Your task to perform on an android device: Check the news Image 0: 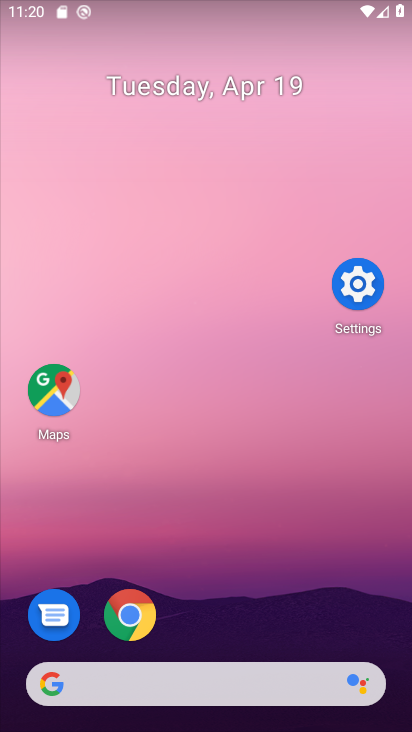
Step 0: drag from (189, 629) to (222, 126)
Your task to perform on an android device: Check the news Image 1: 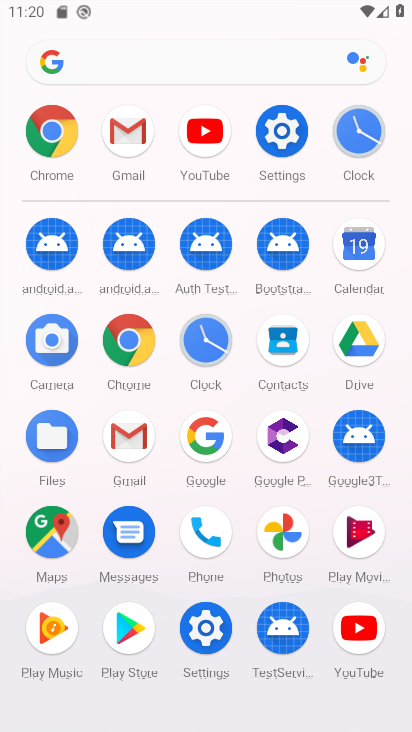
Step 1: click (124, 344)
Your task to perform on an android device: Check the news Image 2: 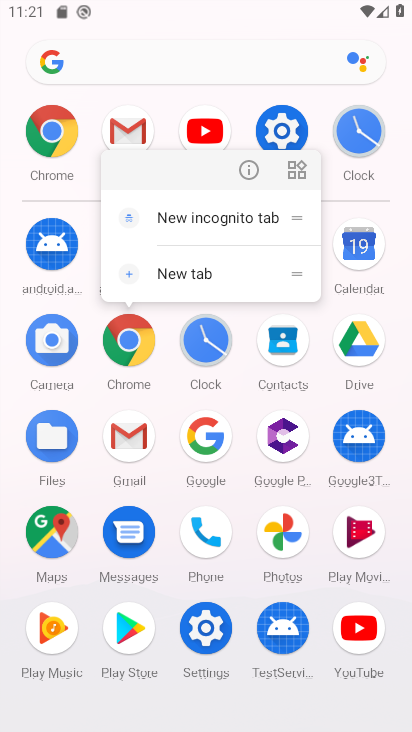
Step 2: click (242, 164)
Your task to perform on an android device: Check the news Image 3: 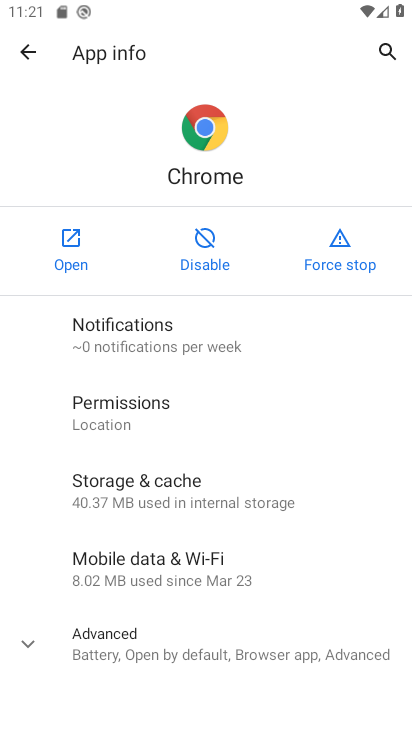
Step 3: click (75, 258)
Your task to perform on an android device: Check the news Image 4: 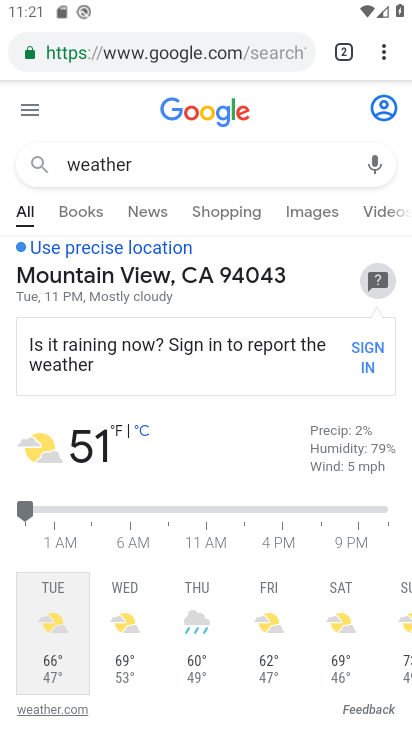
Step 4: click (148, 65)
Your task to perform on an android device: Check the news Image 5: 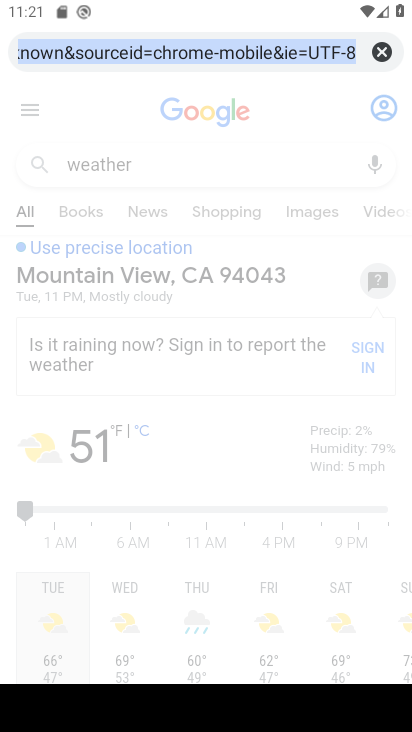
Step 5: click (384, 52)
Your task to perform on an android device: Check the news Image 6: 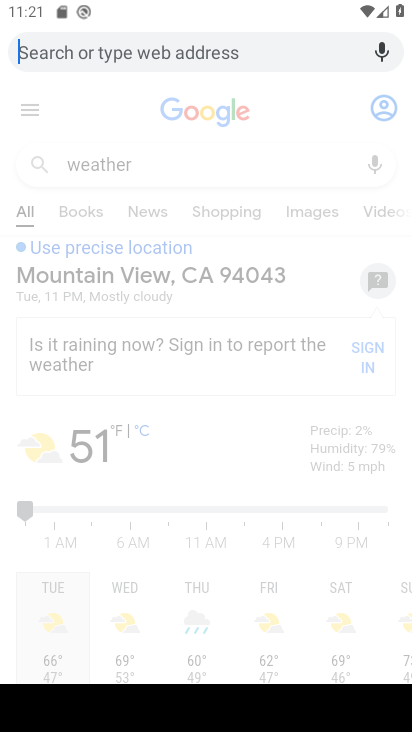
Step 6: click (229, 52)
Your task to perform on an android device: Check the news Image 7: 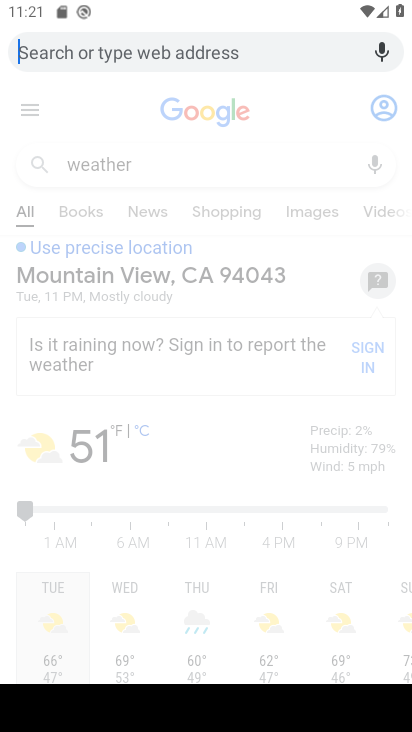
Step 7: type "news"
Your task to perform on an android device: Check the news Image 8: 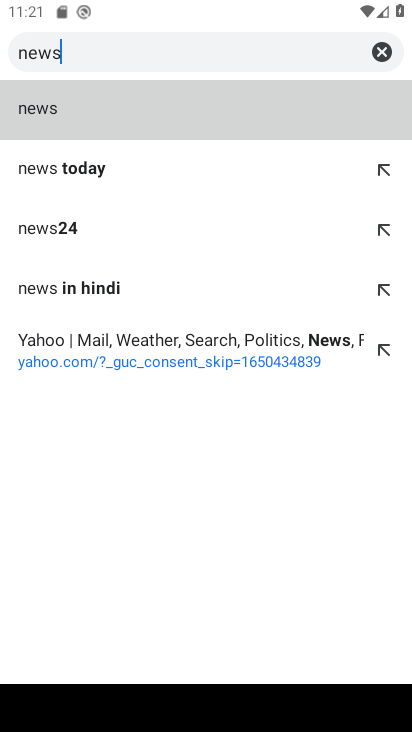
Step 8: click (73, 105)
Your task to perform on an android device: Check the news Image 9: 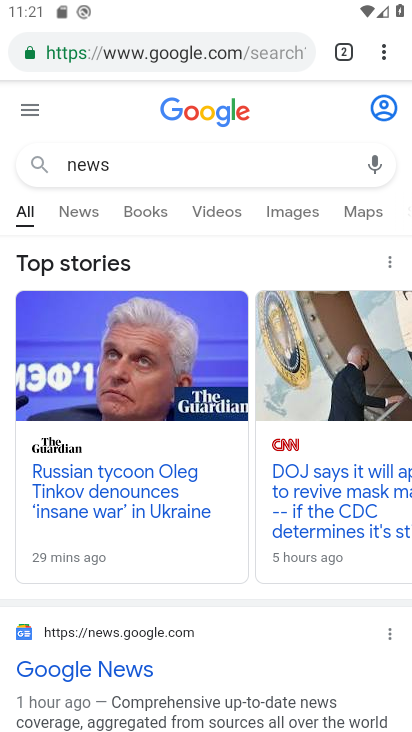
Step 9: task complete